Your task to perform on an android device: turn on notifications settings in the gmail app Image 0: 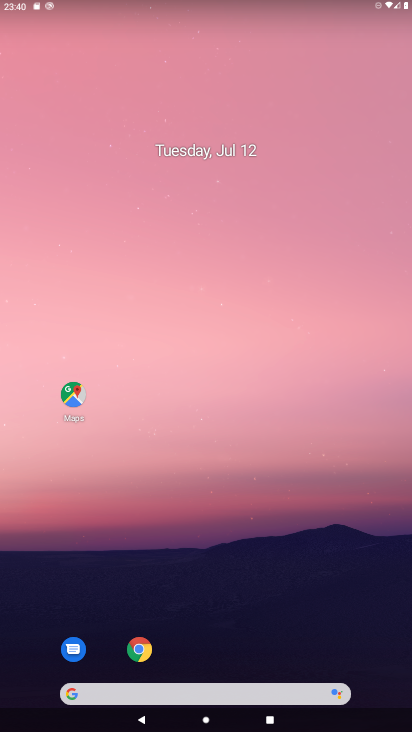
Step 0: drag from (390, 674) to (319, 173)
Your task to perform on an android device: turn on notifications settings in the gmail app Image 1: 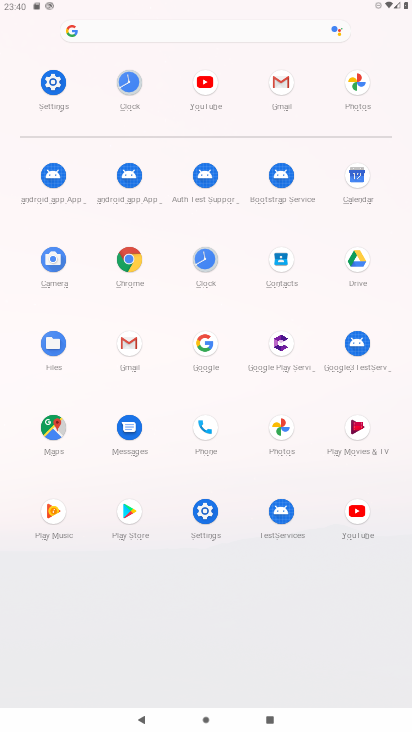
Step 1: click (128, 346)
Your task to perform on an android device: turn on notifications settings in the gmail app Image 2: 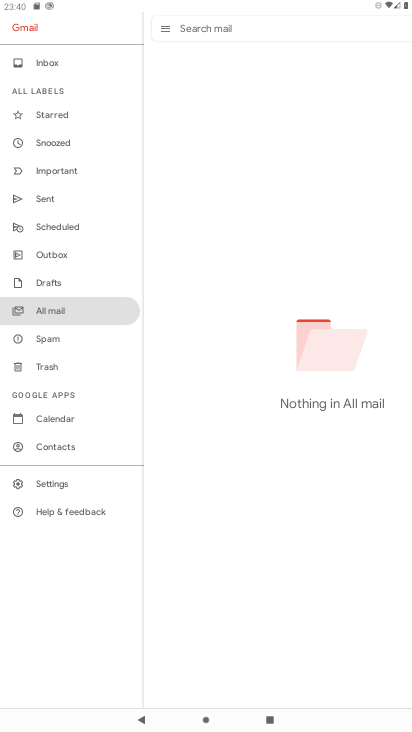
Step 2: click (47, 476)
Your task to perform on an android device: turn on notifications settings in the gmail app Image 3: 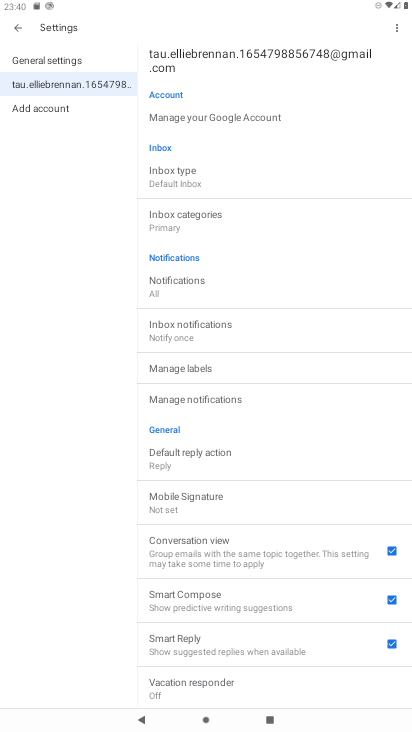
Step 3: click (190, 397)
Your task to perform on an android device: turn on notifications settings in the gmail app Image 4: 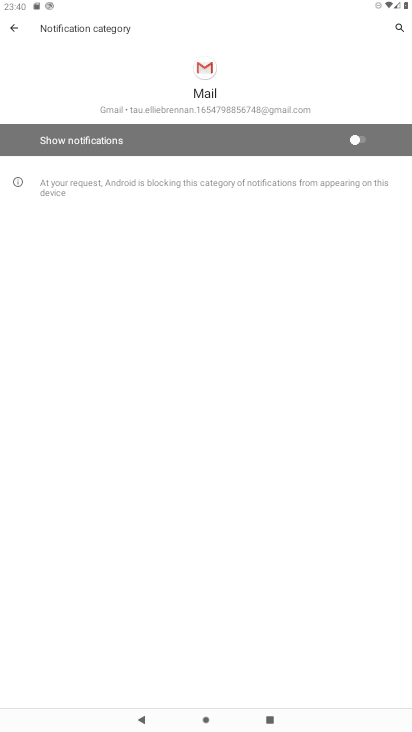
Step 4: click (363, 139)
Your task to perform on an android device: turn on notifications settings in the gmail app Image 5: 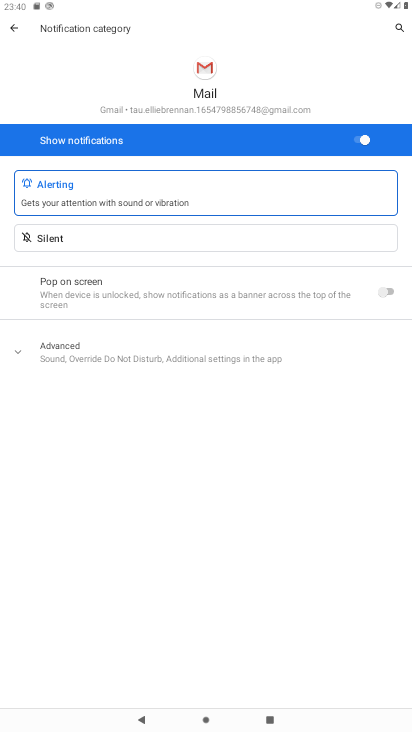
Step 5: task complete